Your task to perform on an android device: Do I have any events tomorrow? Image 0: 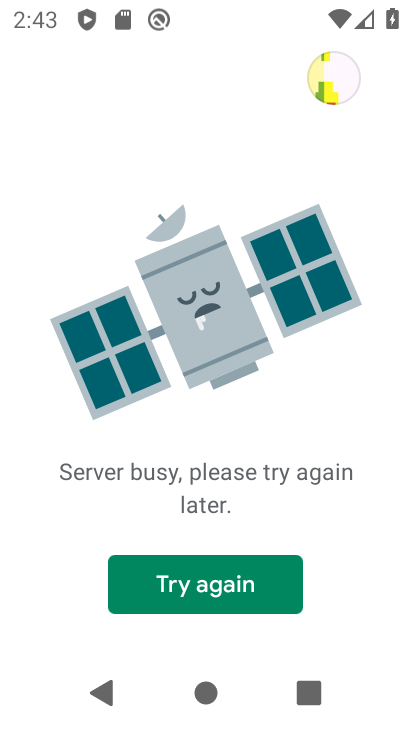
Step 0: press home button
Your task to perform on an android device: Do I have any events tomorrow? Image 1: 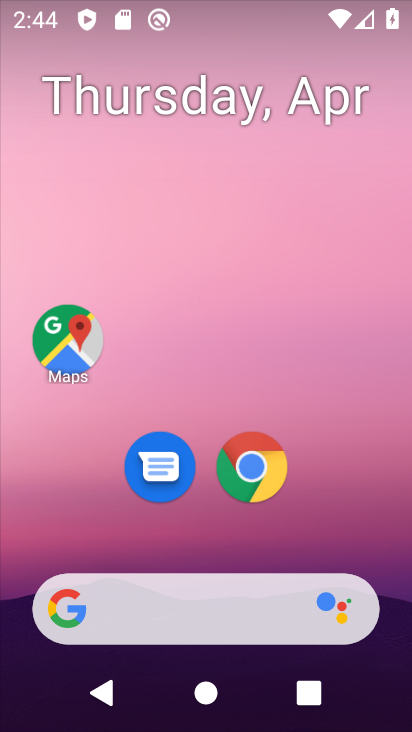
Step 1: drag from (328, 498) to (323, 60)
Your task to perform on an android device: Do I have any events tomorrow? Image 2: 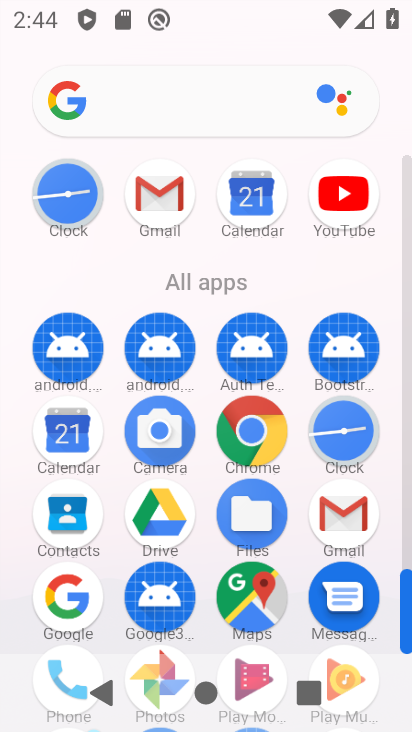
Step 2: click (87, 429)
Your task to perform on an android device: Do I have any events tomorrow? Image 3: 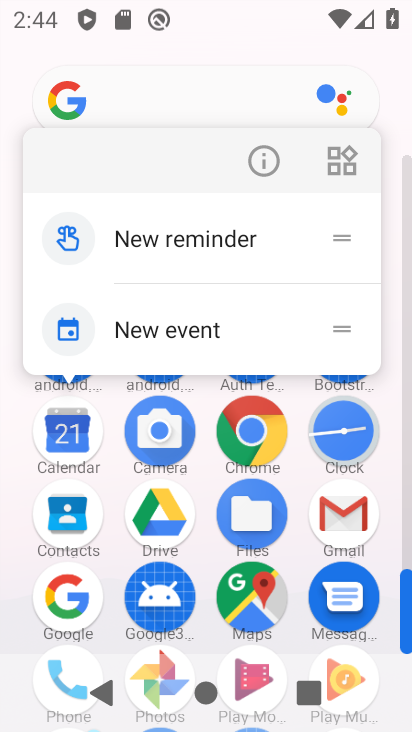
Step 3: click (87, 431)
Your task to perform on an android device: Do I have any events tomorrow? Image 4: 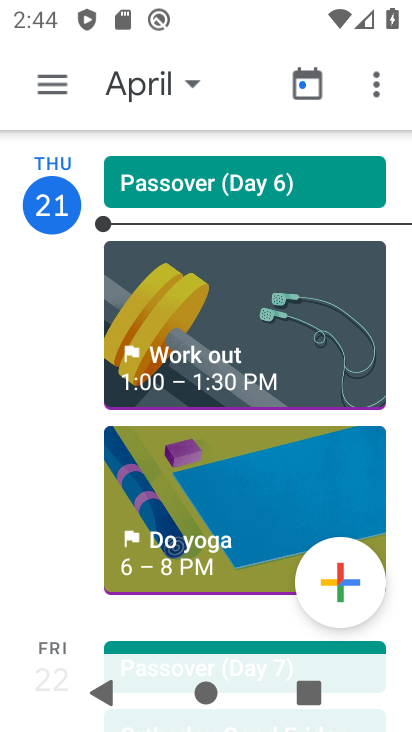
Step 4: task complete